Your task to perform on an android device: change alarm snooze length Image 0: 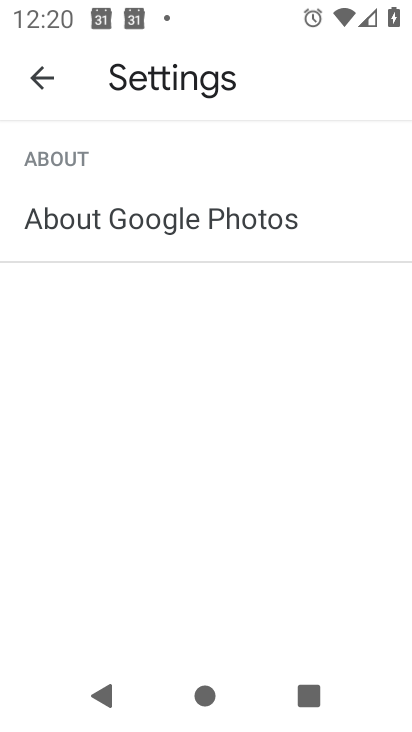
Step 0: press home button
Your task to perform on an android device: change alarm snooze length Image 1: 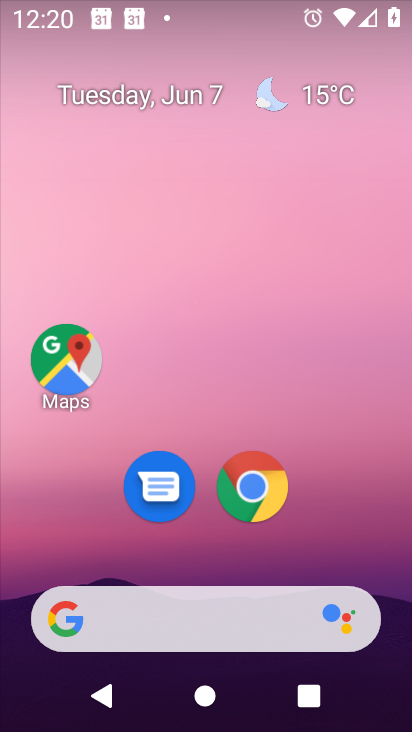
Step 1: drag from (353, 552) to (274, 15)
Your task to perform on an android device: change alarm snooze length Image 2: 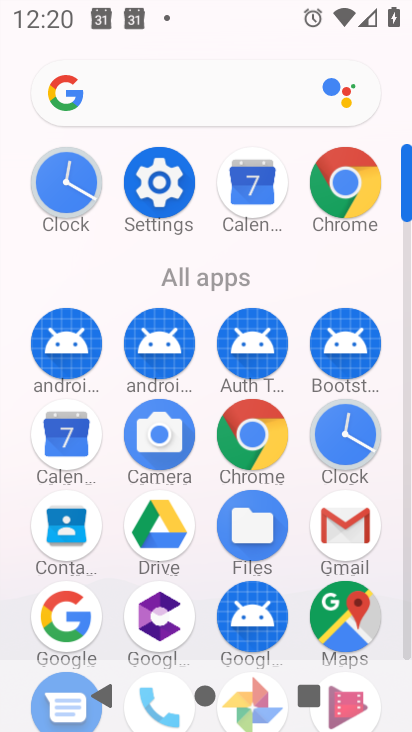
Step 2: click (71, 196)
Your task to perform on an android device: change alarm snooze length Image 3: 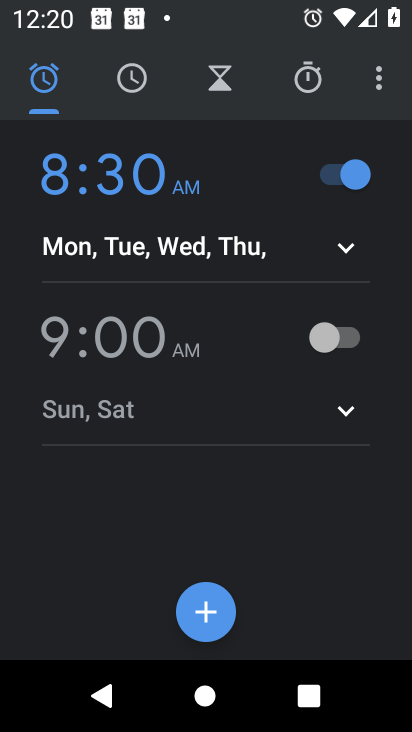
Step 3: click (382, 76)
Your task to perform on an android device: change alarm snooze length Image 4: 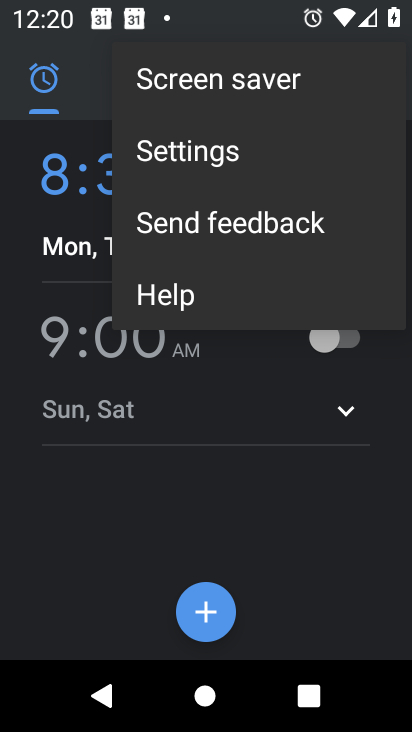
Step 4: click (267, 161)
Your task to perform on an android device: change alarm snooze length Image 5: 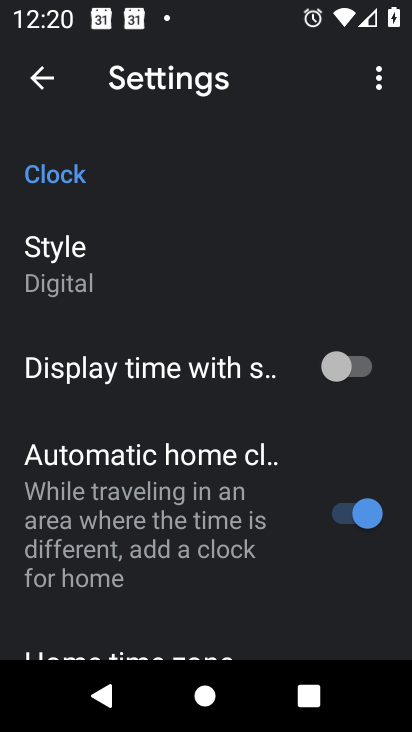
Step 5: drag from (235, 544) to (214, 173)
Your task to perform on an android device: change alarm snooze length Image 6: 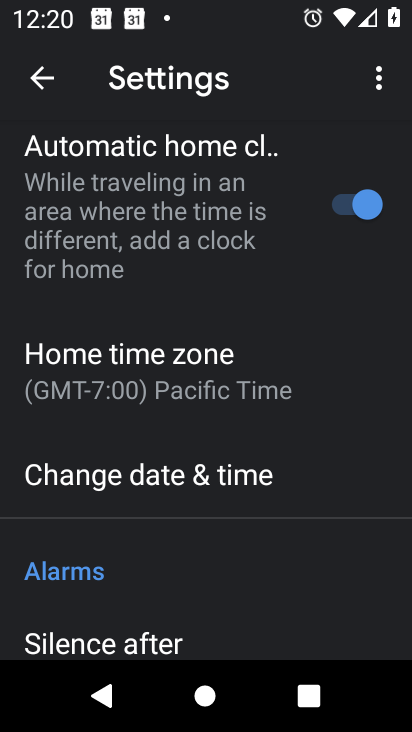
Step 6: drag from (219, 544) to (246, 151)
Your task to perform on an android device: change alarm snooze length Image 7: 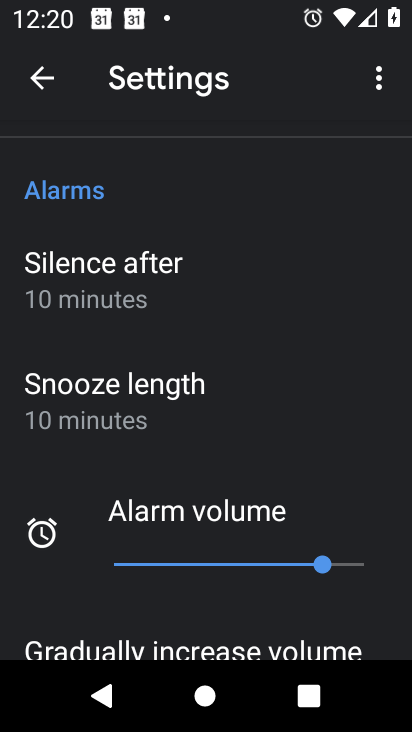
Step 7: click (221, 406)
Your task to perform on an android device: change alarm snooze length Image 8: 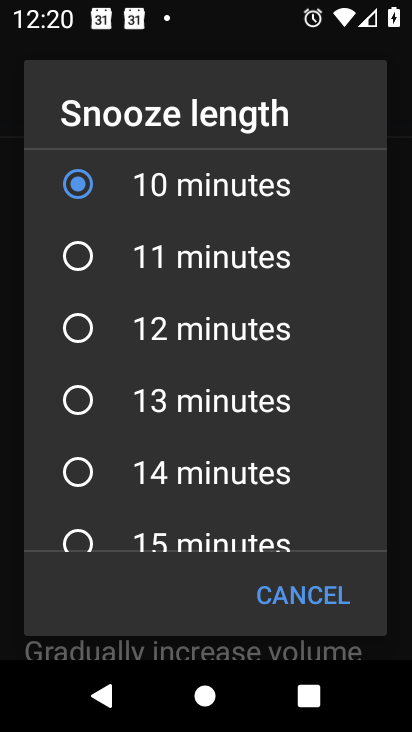
Step 8: click (208, 261)
Your task to perform on an android device: change alarm snooze length Image 9: 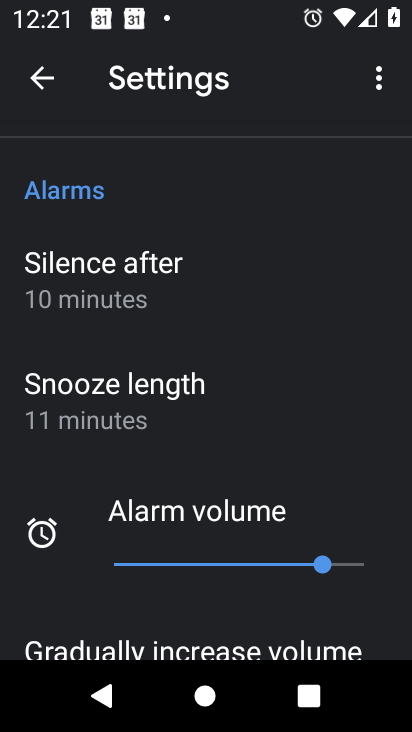
Step 9: task complete